Your task to perform on an android device: check android version Image 0: 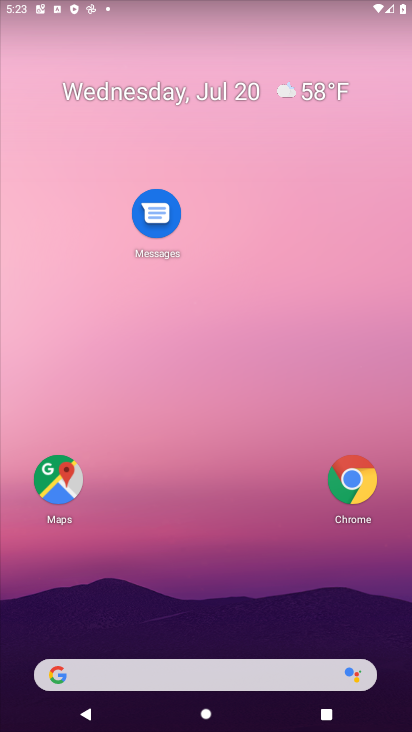
Step 0: drag from (231, 601) to (233, 172)
Your task to perform on an android device: check android version Image 1: 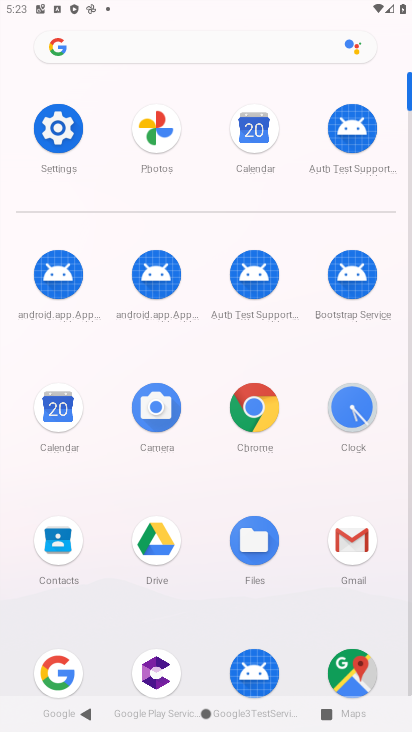
Step 1: drag from (267, 455) to (266, 324)
Your task to perform on an android device: check android version Image 2: 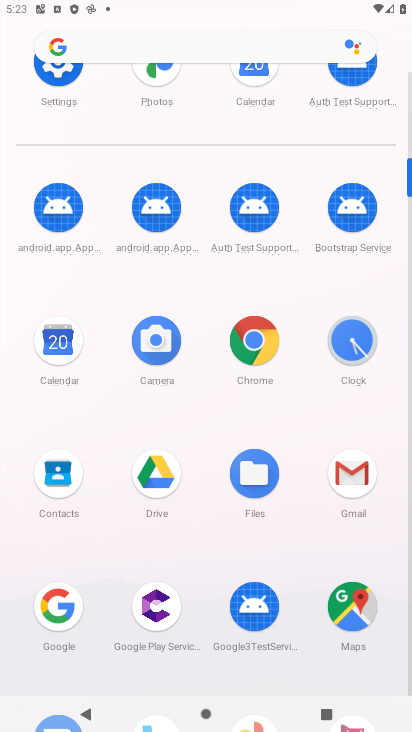
Step 2: drag from (283, 464) to (283, 376)
Your task to perform on an android device: check android version Image 3: 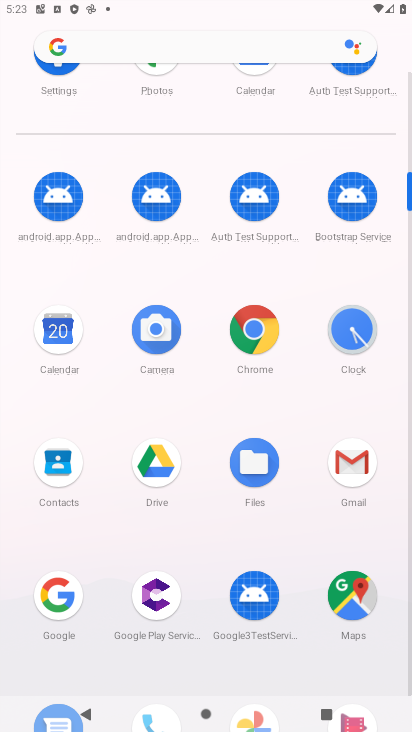
Step 3: drag from (194, 482) to (227, 330)
Your task to perform on an android device: check android version Image 4: 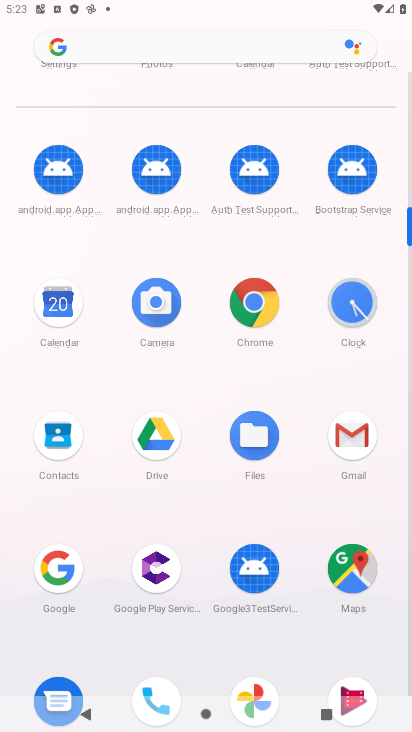
Step 4: drag from (292, 616) to (300, 466)
Your task to perform on an android device: check android version Image 5: 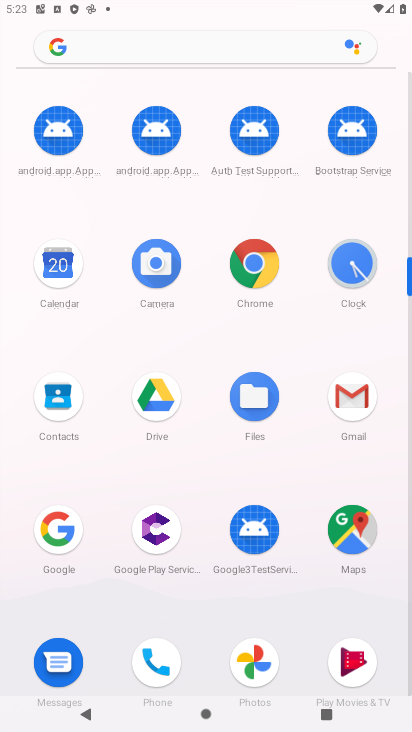
Step 5: drag from (288, 429) to (282, 672)
Your task to perform on an android device: check android version Image 6: 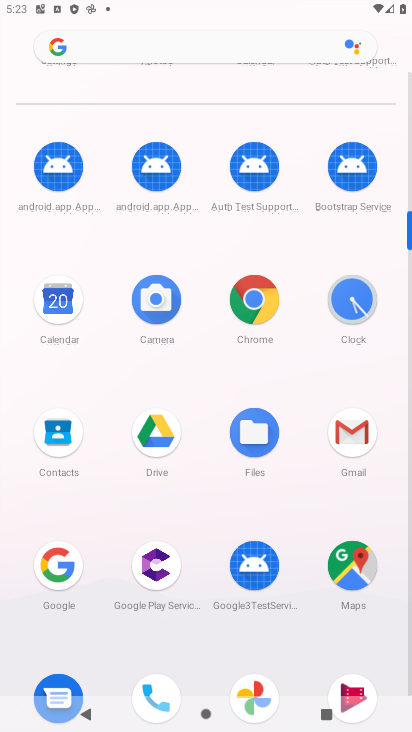
Step 6: drag from (201, 580) to (210, 341)
Your task to perform on an android device: check android version Image 7: 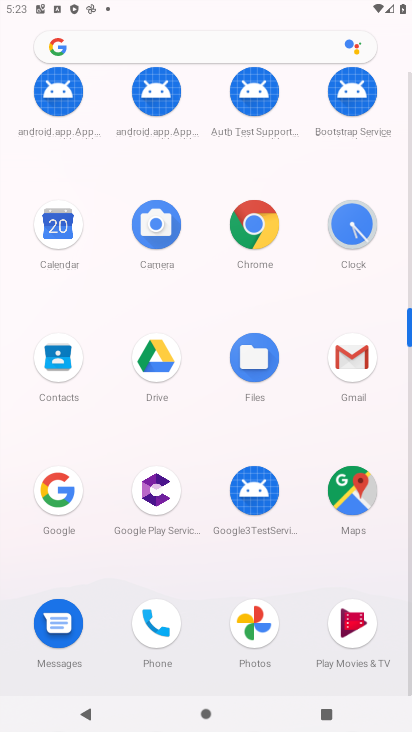
Step 7: drag from (219, 494) to (223, 406)
Your task to perform on an android device: check android version Image 8: 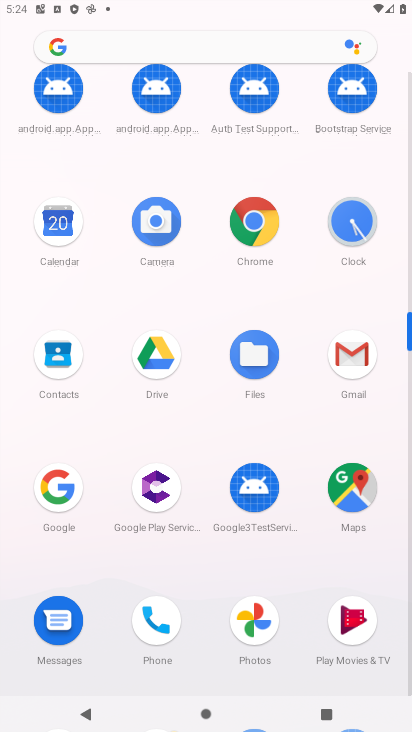
Step 8: drag from (280, 401) to (263, 681)
Your task to perform on an android device: check android version Image 9: 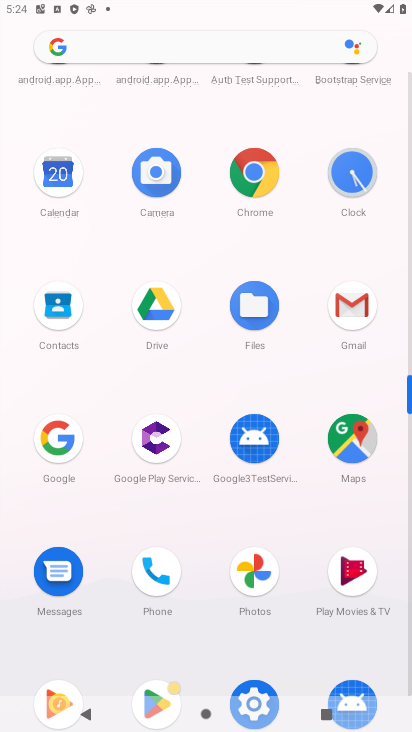
Step 9: drag from (286, 448) to (276, 521)
Your task to perform on an android device: check android version Image 10: 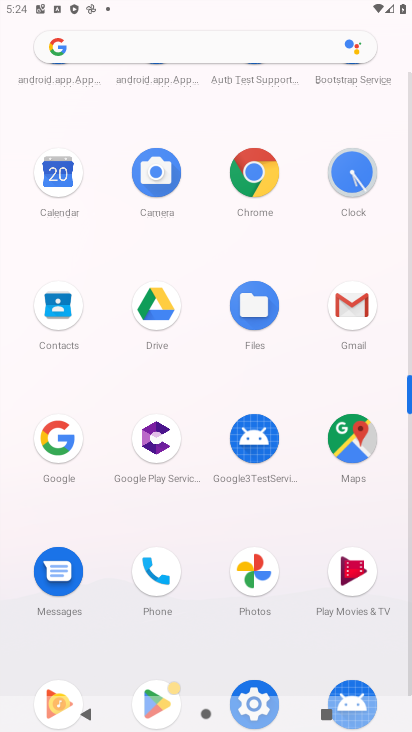
Step 10: drag from (285, 287) to (283, 468)
Your task to perform on an android device: check android version Image 11: 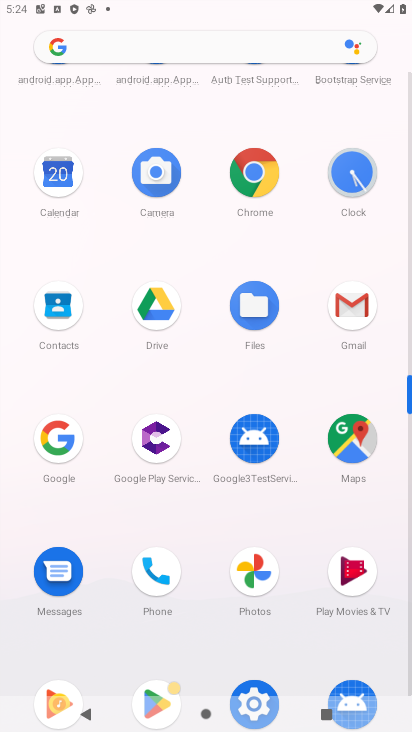
Step 11: click (245, 681)
Your task to perform on an android device: check android version Image 12: 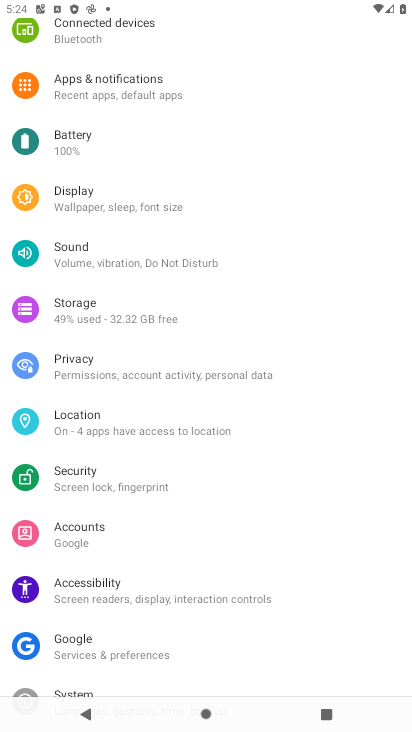
Step 12: drag from (123, 134) to (164, 6)
Your task to perform on an android device: check android version Image 13: 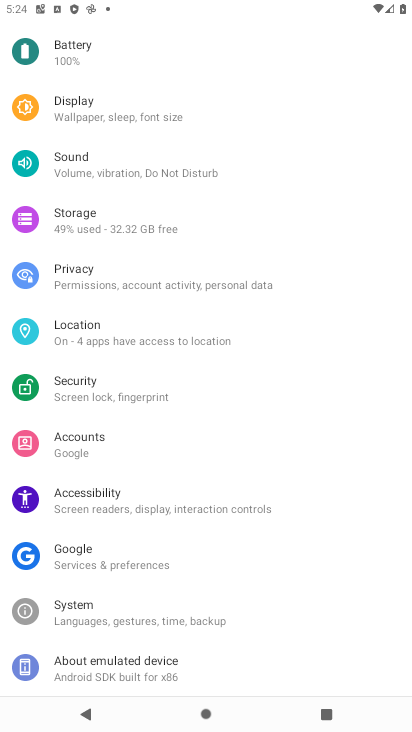
Step 13: drag from (124, 480) to (168, 319)
Your task to perform on an android device: check android version Image 14: 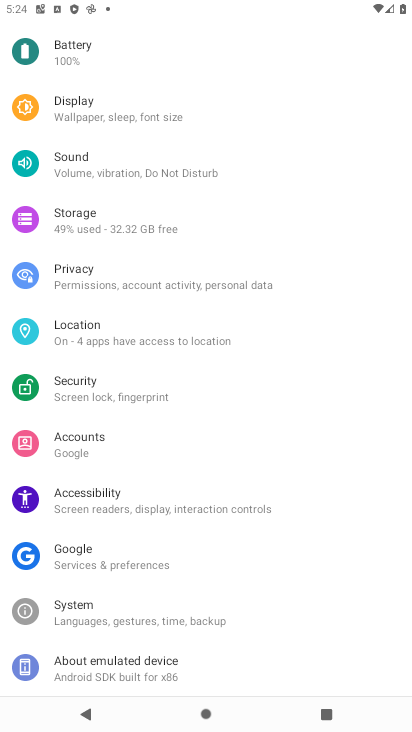
Step 14: click (97, 669)
Your task to perform on an android device: check android version Image 15: 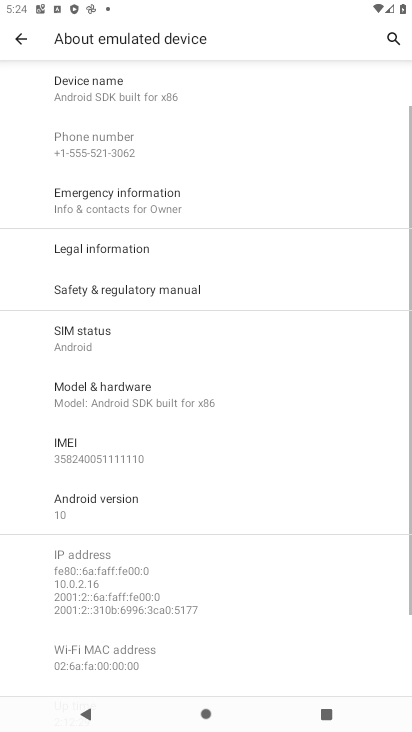
Step 15: click (113, 341)
Your task to perform on an android device: check android version Image 16: 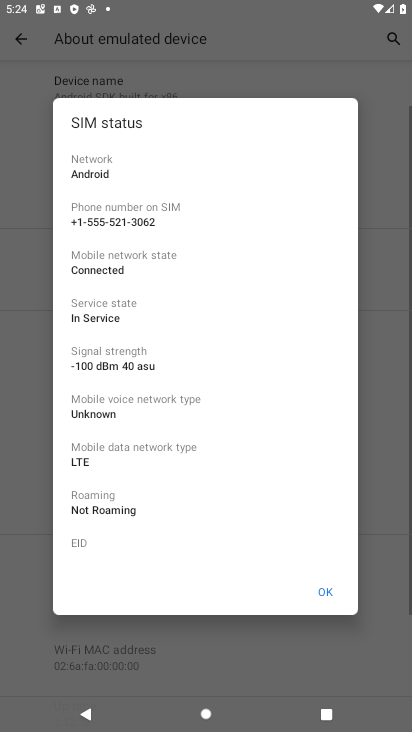
Step 16: task complete